Your task to perform on an android device: delete the emails in spam in the gmail app Image 0: 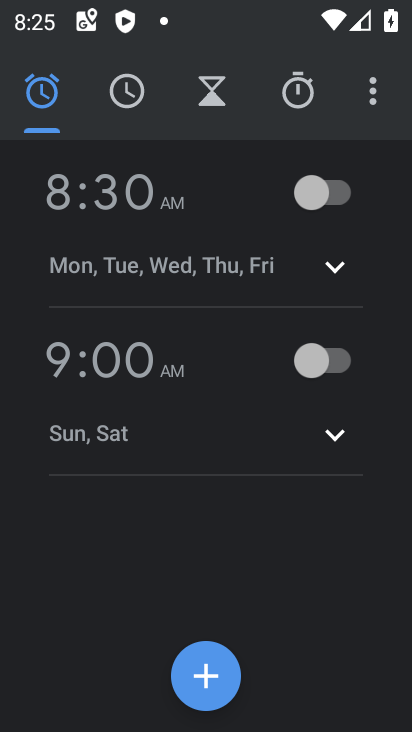
Step 0: press back button
Your task to perform on an android device: delete the emails in spam in the gmail app Image 1: 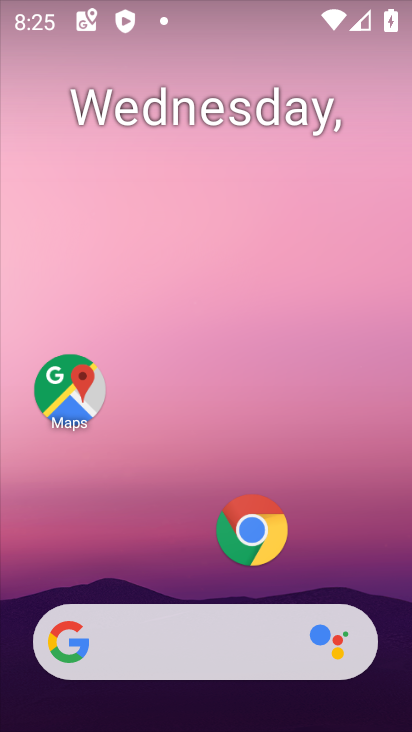
Step 1: drag from (144, 450) to (198, 4)
Your task to perform on an android device: delete the emails in spam in the gmail app Image 2: 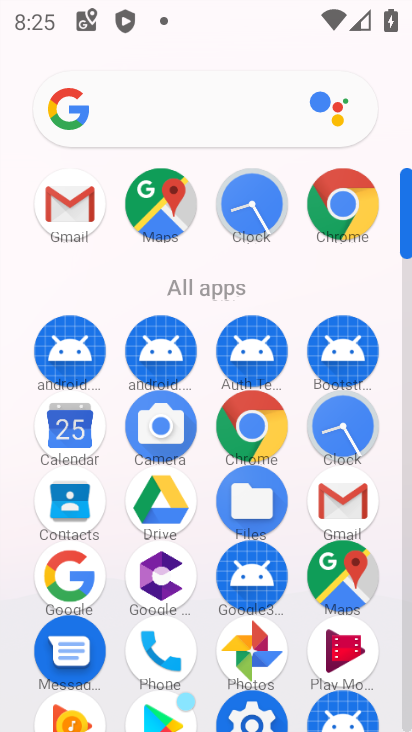
Step 2: click (74, 191)
Your task to perform on an android device: delete the emails in spam in the gmail app Image 3: 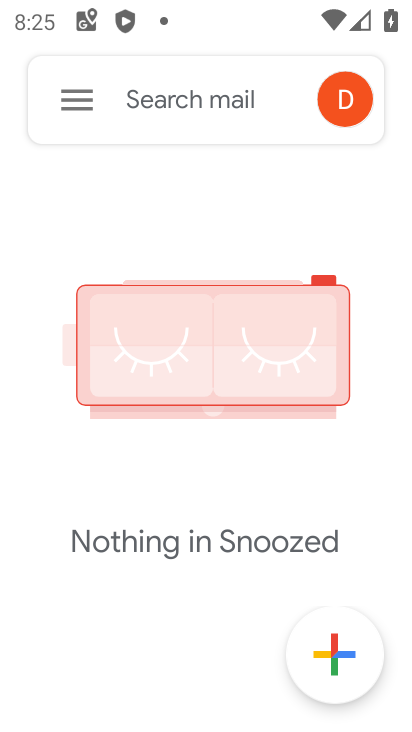
Step 3: click (86, 94)
Your task to perform on an android device: delete the emails in spam in the gmail app Image 4: 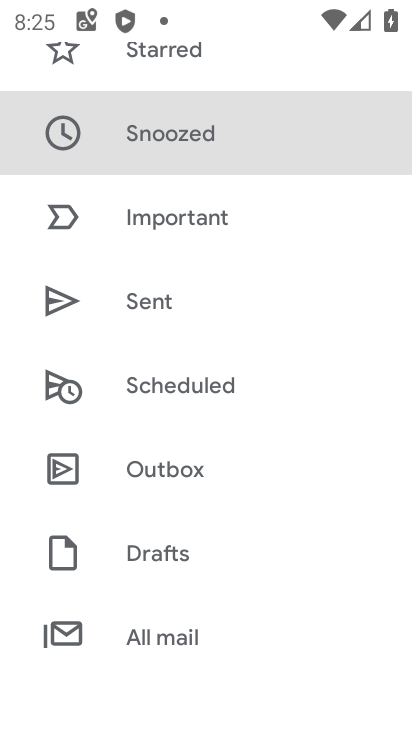
Step 4: click (160, 638)
Your task to perform on an android device: delete the emails in spam in the gmail app Image 5: 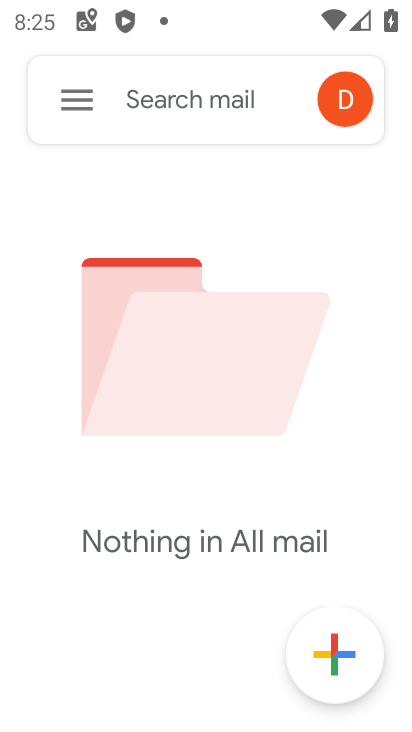
Step 5: click (57, 97)
Your task to perform on an android device: delete the emails in spam in the gmail app Image 6: 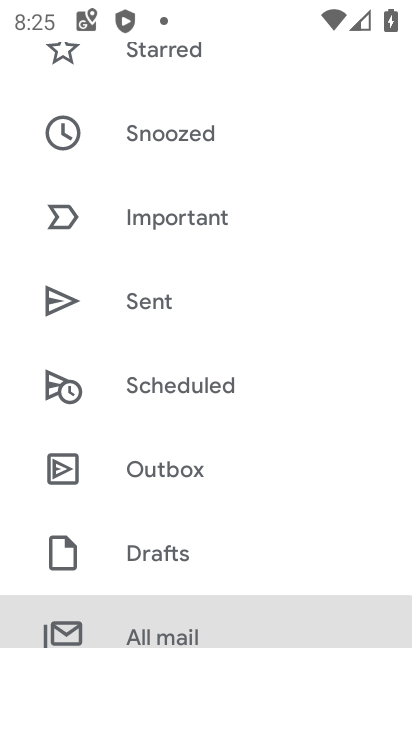
Step 6: drag from (180, 600) to (274, 71)
Your task to perform on an android device: delete the emails in spam in the gmail app Image 7: 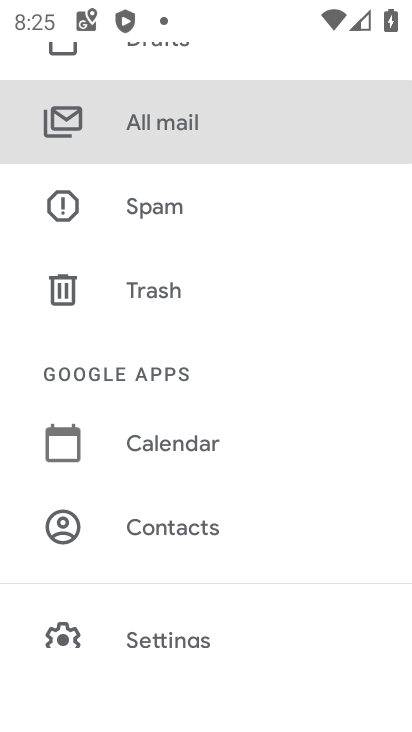
Step 7: click (137, 208)
Your task to perform on an android device: delete the emails in spam in the gmail app Image 8: 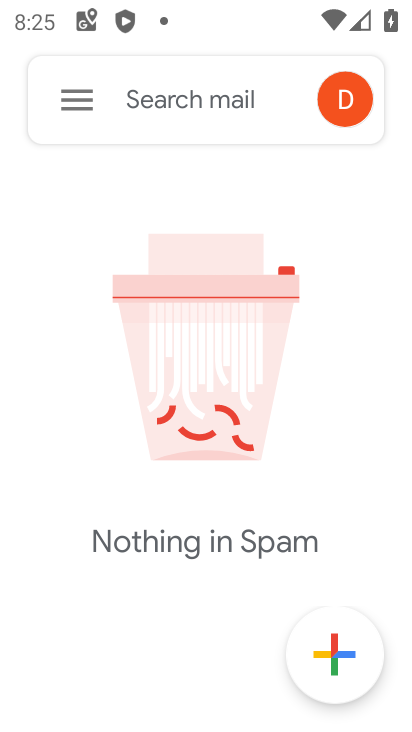
Step 8: task complete